Your task to perform on an android device: change your default location settings in chrome Image 0: 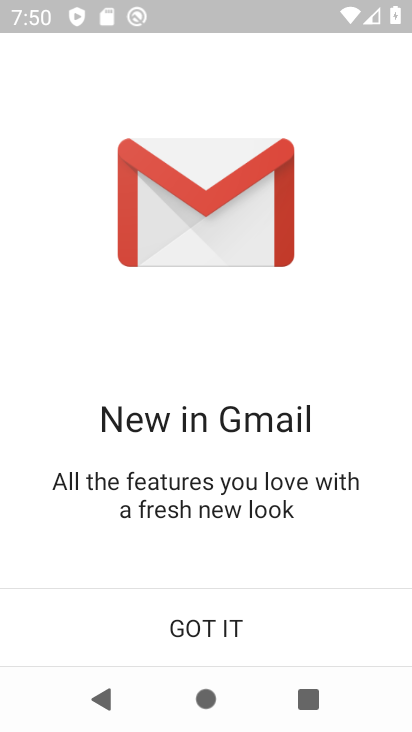
Step 0: press back button
Your task to perform on an android device: change your default location settings in chrome Image 1: 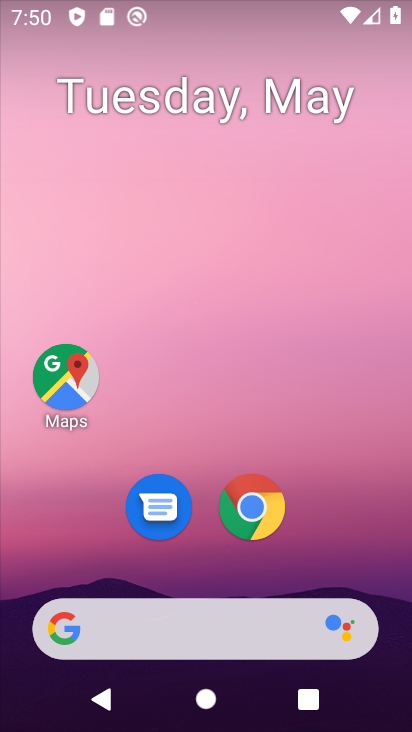
Step 1: drag from (396, 592) to (377, 38)
Your task to perform on an android device: change your default location settings in chrome Image 2: 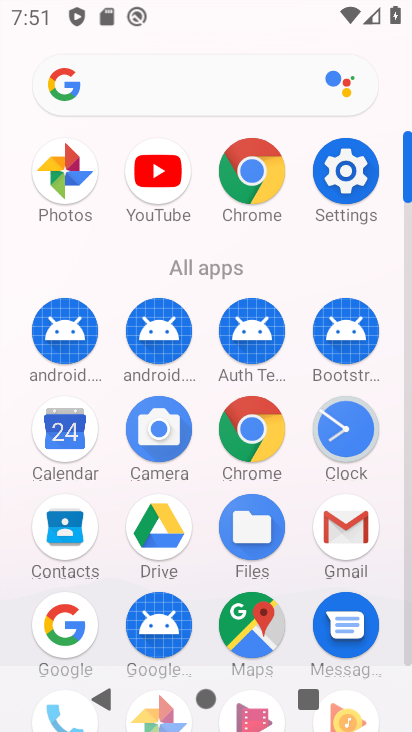
Step 2: drag from (11, 587) to (11, 286)
Your task to perform on an android device: change your default location settings in chrome Image 3: 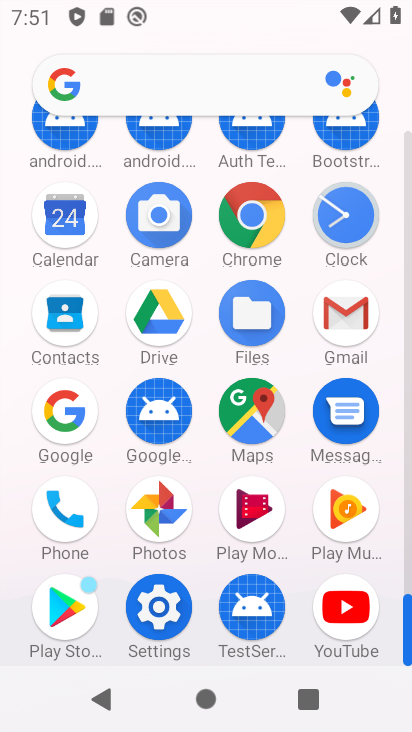
Step 3: click (251, 214)
Your task to perform on an android device: change your default location settings in chrome Image 4: 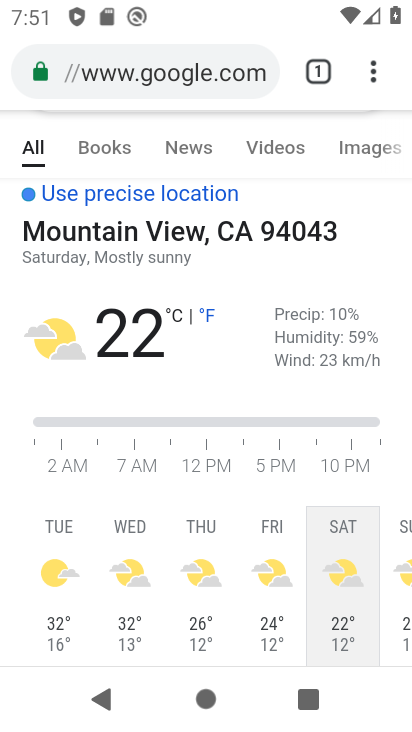
Step 4: drag from (369, 75) to (140, 504)
Your task to perform on an android device: change your default location settings in chrome Image 5: 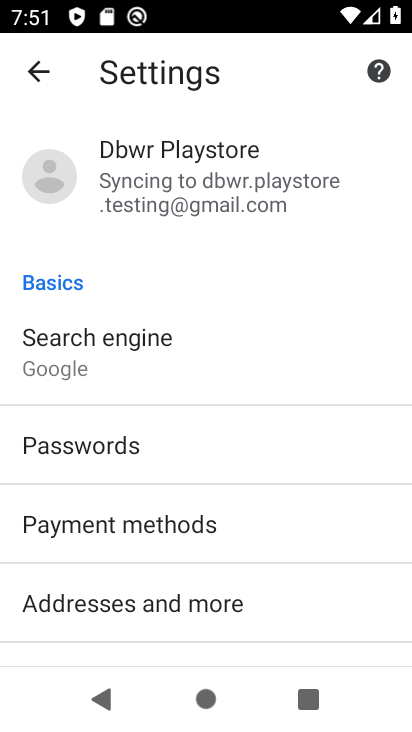
Step 5: drag from (210, 603) to (249, 263)
Your task to perform on an android device: change your default location settings in chrome Image 6: 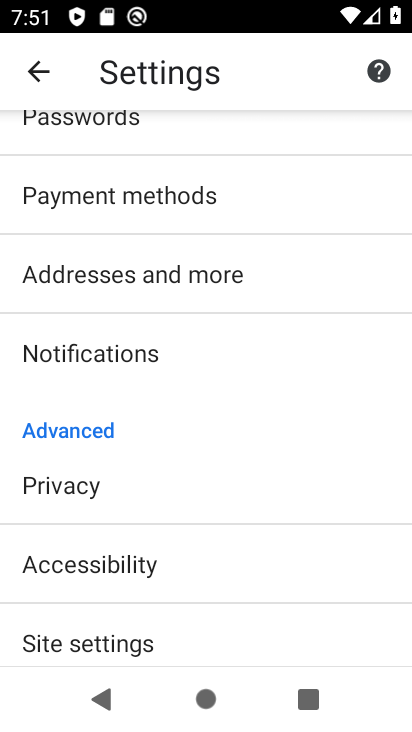
Step 6: drag from (239, 590) to (259, 194)
Your task to perform on an android device: change your default location settings in chrome Image 7: 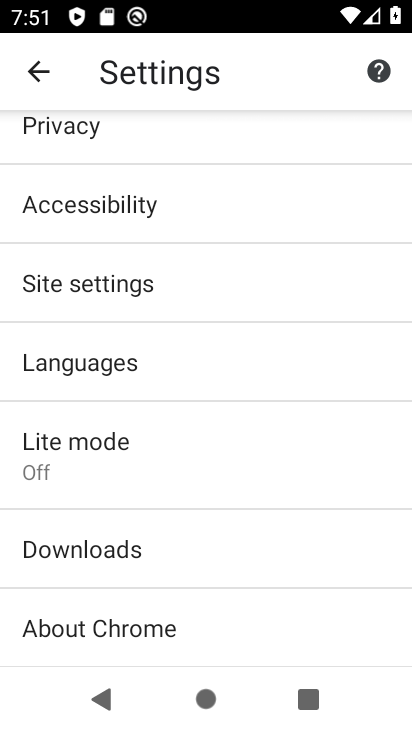
Step 7: click (123, 274)
Your task to perform on an android device: change your default location settings in chrome Image 8: 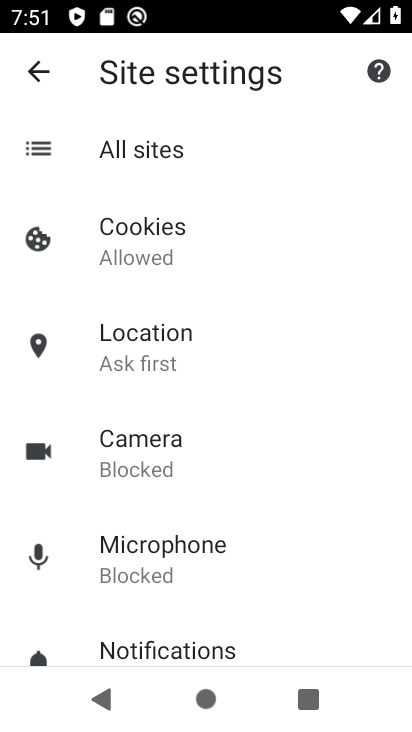
Step 8: drag from (231, 569) to (232, 452)
Your task to perform on an android device: change your default location settings in chrome Image 9: 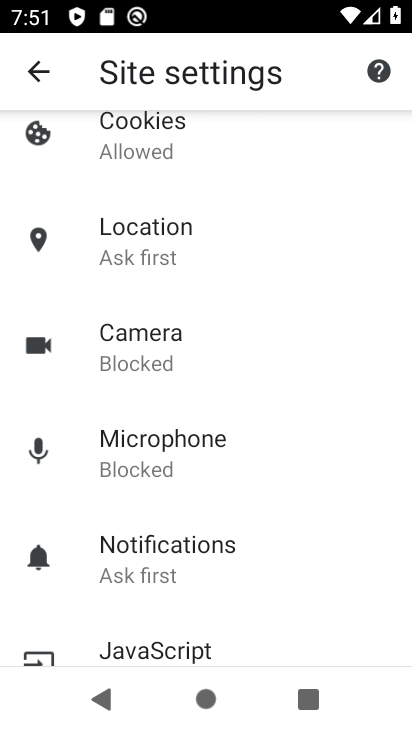
Step 9: click (166, 234)
Your task to perform on an android device: change your default location settings in chrome Image 10: 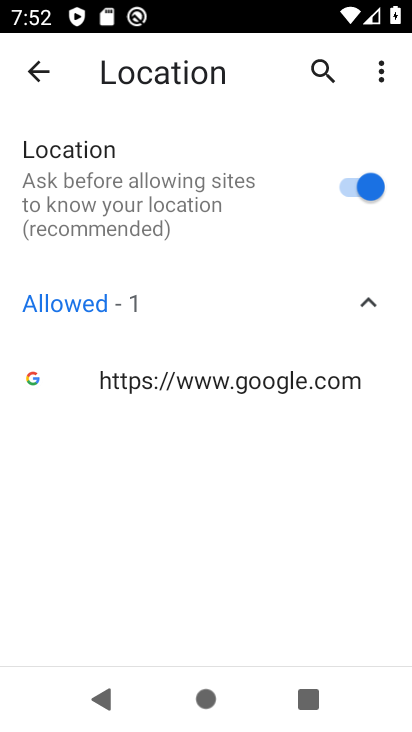
Step 10: click (352, 188)
Your task to perform on an android device: change your default location settings in chrome Image 11: 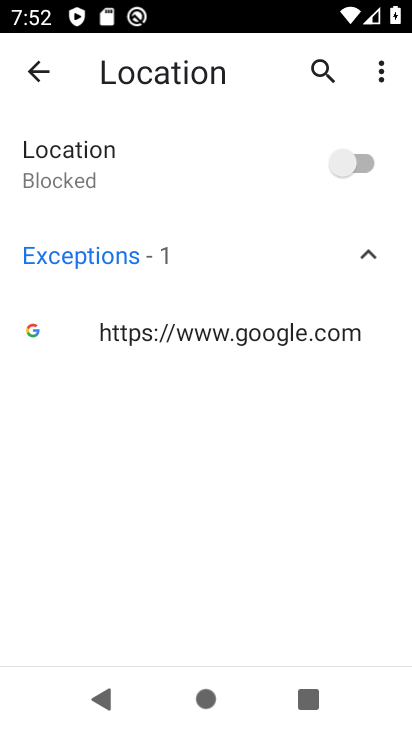
Step 11: task complete